Your task to perform on an android device: turn on priority inbox in the gmail app Image 0: 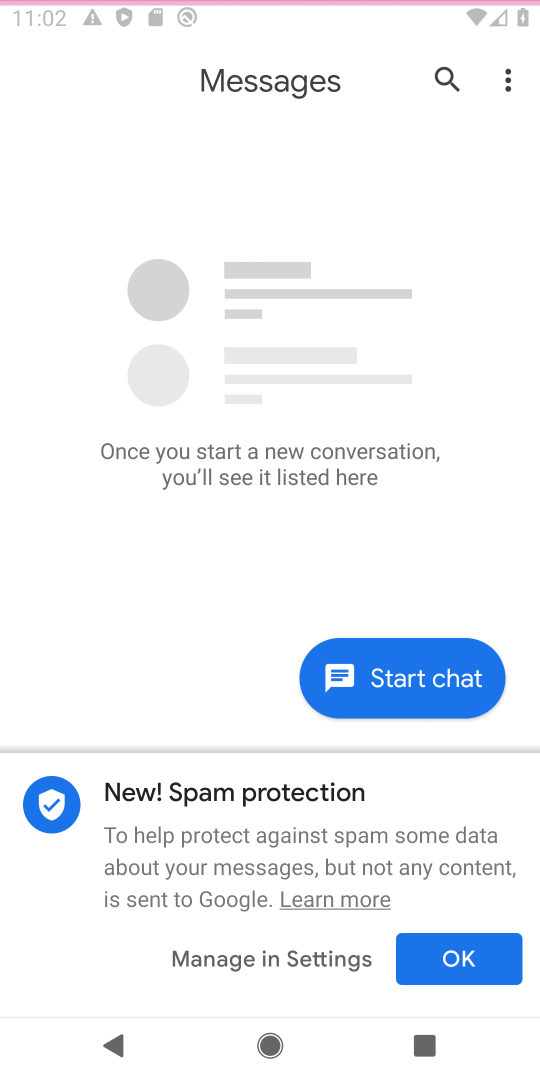
Step 0: press home button
Your task to perform on an android device: turn on priority inbox in the gmail app Image 1: 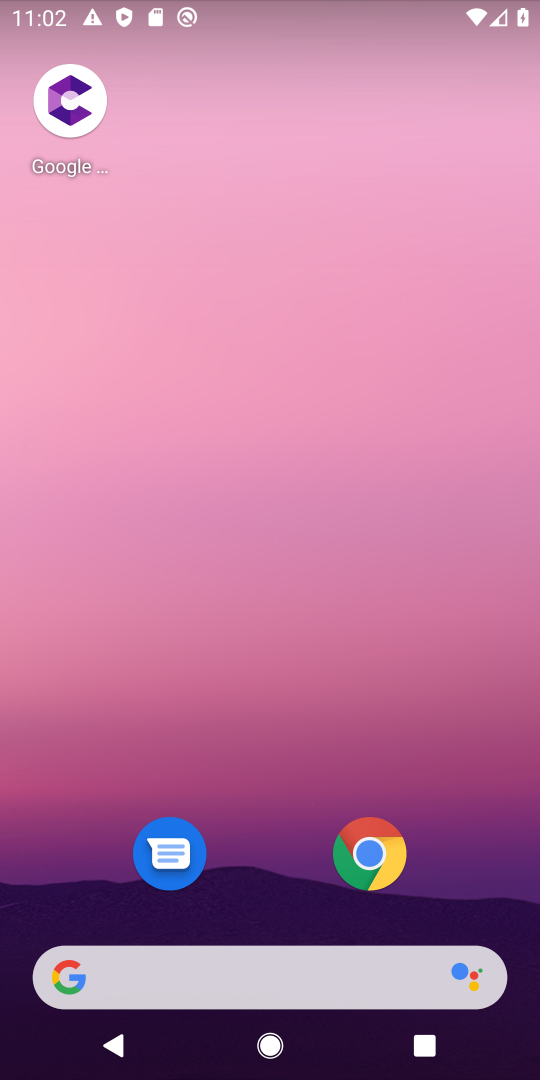
Step 1: drag from (249, 808) to (270, 0)
Your task to perform on an android device: turn on priority inbox in the gmail app Image 2: 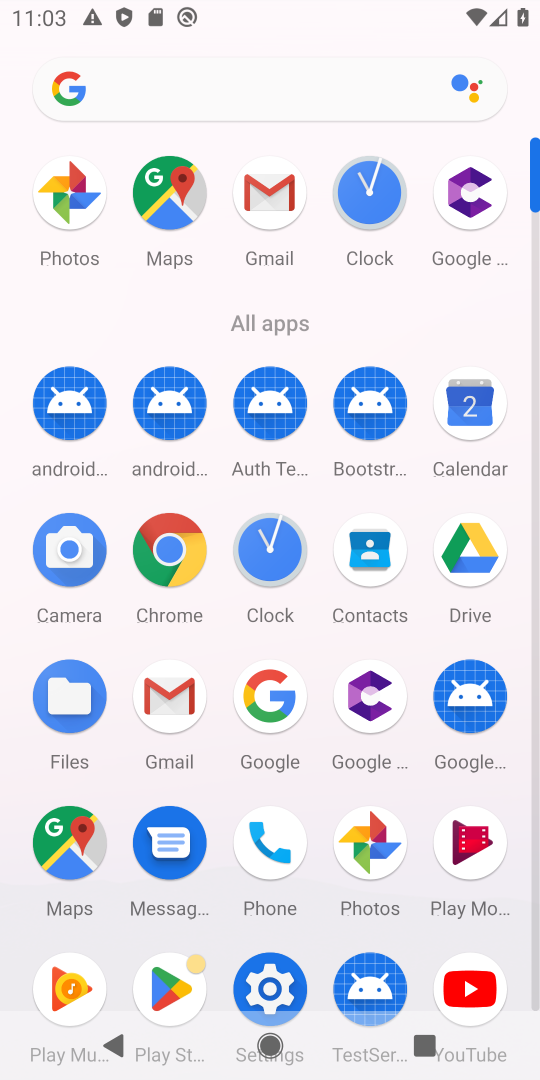
Step 2: click (100, 839)
Your task to perform on an android device: turn on priority inbox in the gmail app Image 3: 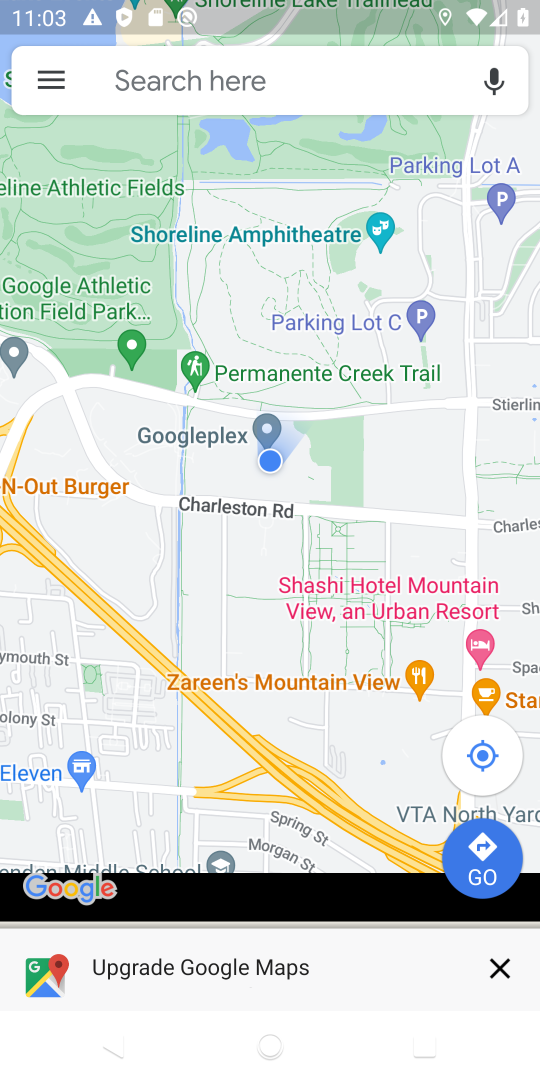
Step 3: click (272, 55)
Your task to perform on an android device: turn on priority inbox in the gmail app Image 4: 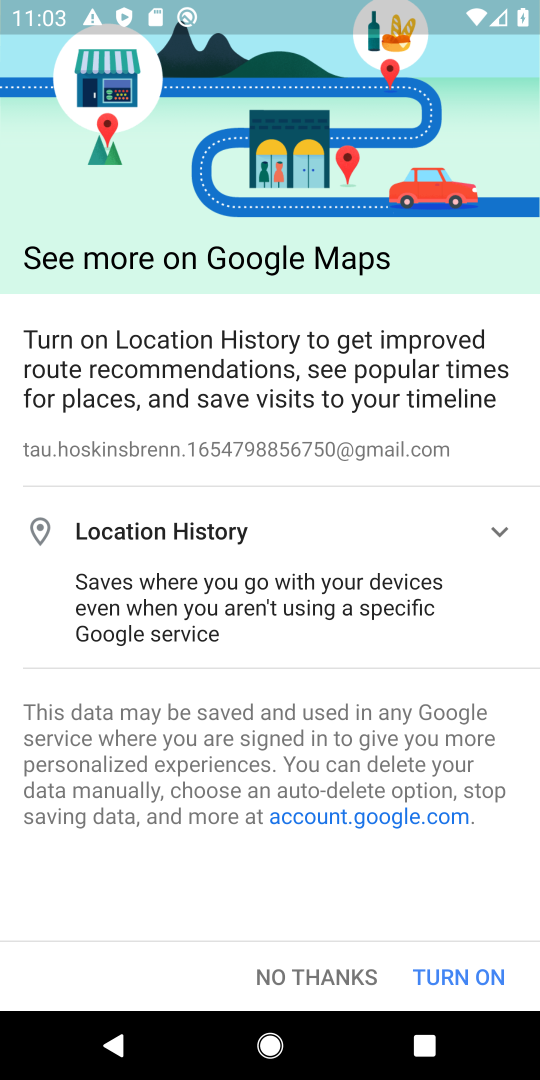
Step 4: type " priority inbox i"
Your task to perform on an android device: turn on priority inbox in the gmail app Image 5: 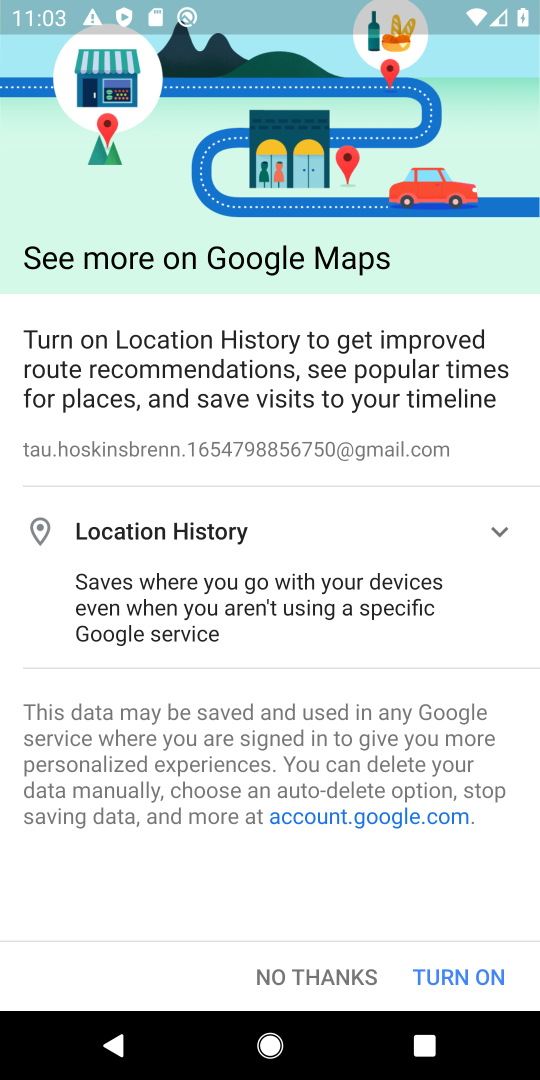
Step 5: click (285, 976)
Your task to perform on an android device: turn on priority inbox in the gmail app Image 6: 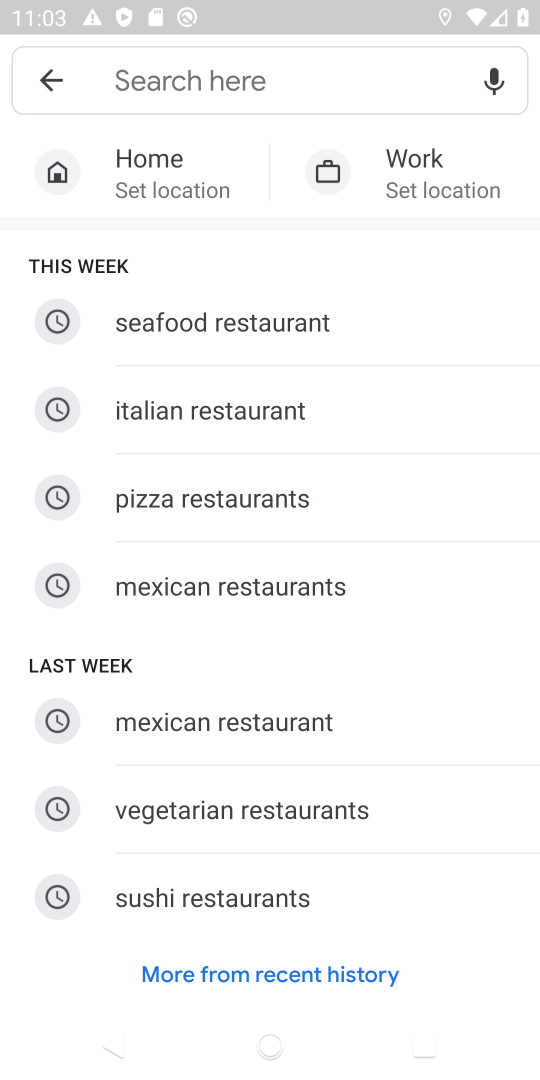
Step 6: press home button
Your task to perform on an android device: turn on priority inbox in the gmail app Image 7: 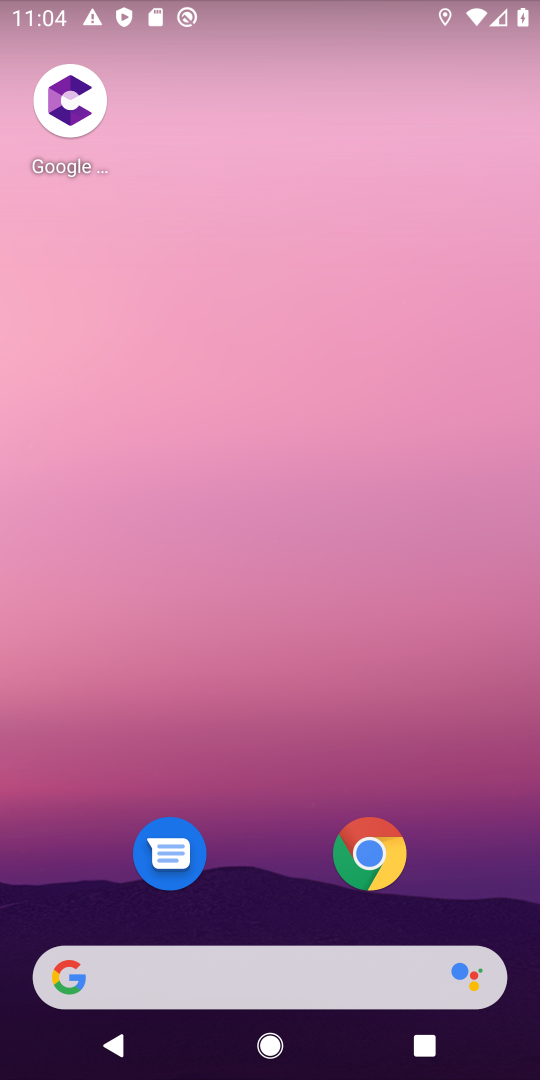
Step 7: drag from (319, 868) to (355, 3)
Your task to perform on an android device: turn on priority inbox in the gmail app Image 8: 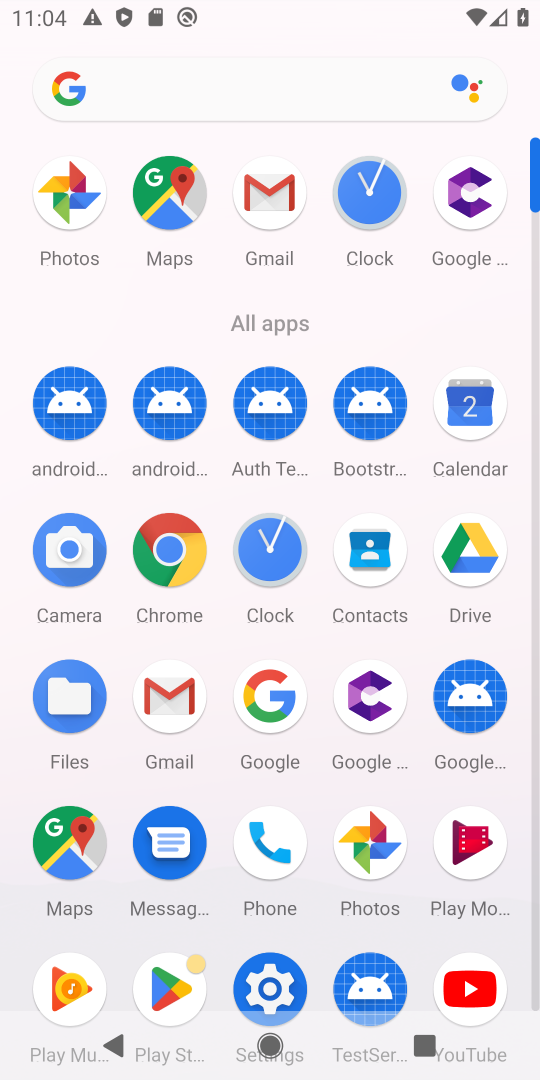
Step 8: click (266, 214)
Your task to perform on an android device: turn on priority inbox in the gmail app Image 9: 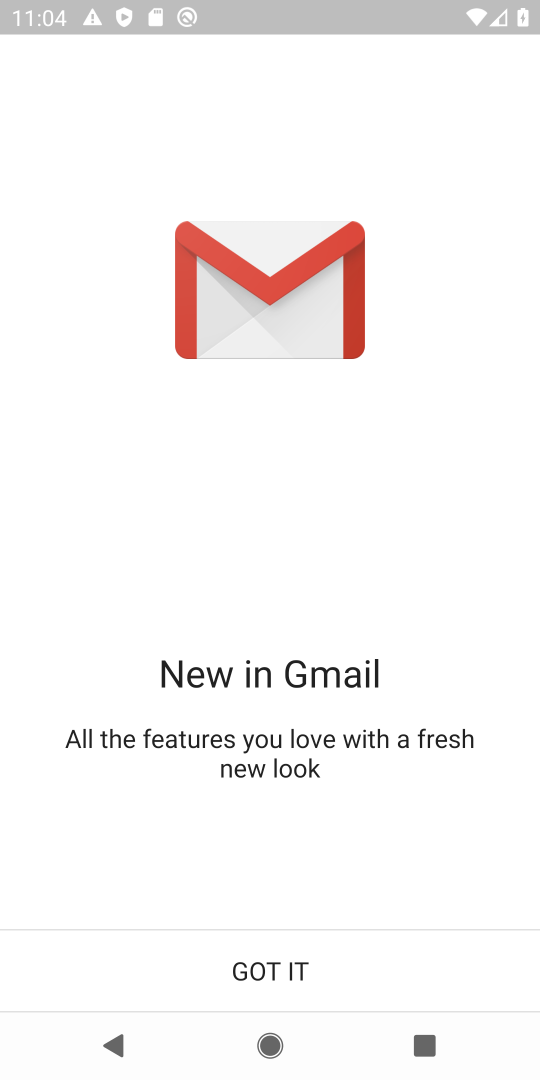
Step 9: click (233, 1004)
Your task to perform on an android device: turn on priority inbox in the gmail app Image 10: 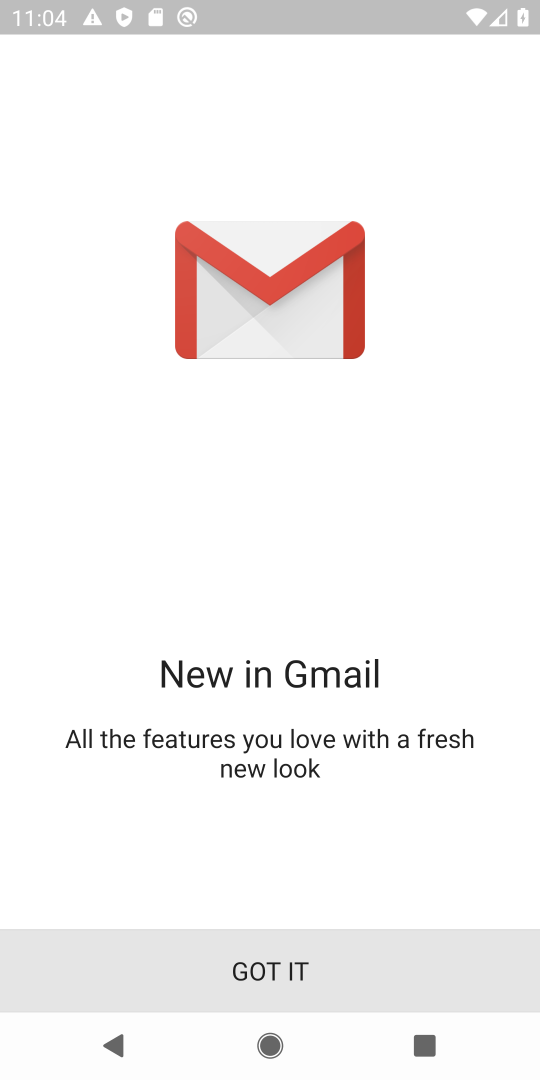
Step 10: click (235, 993)
Your task to perform on an android device: turn on priority inbox in the gmail app Image 11: 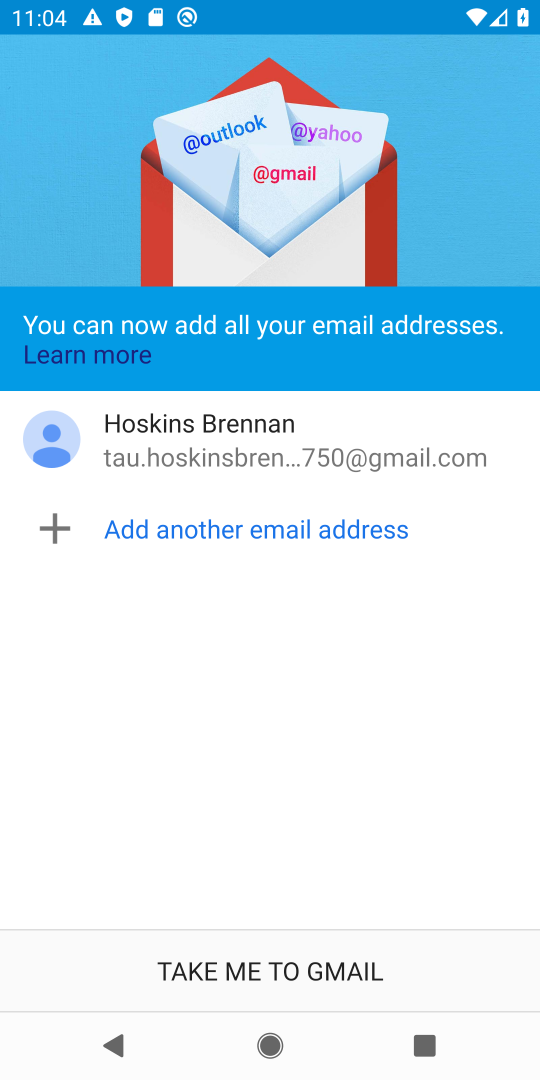
Step 11: click (235, 985)
Your task to perform on an android device: turn on priority inbox in the gmail app Image 12: 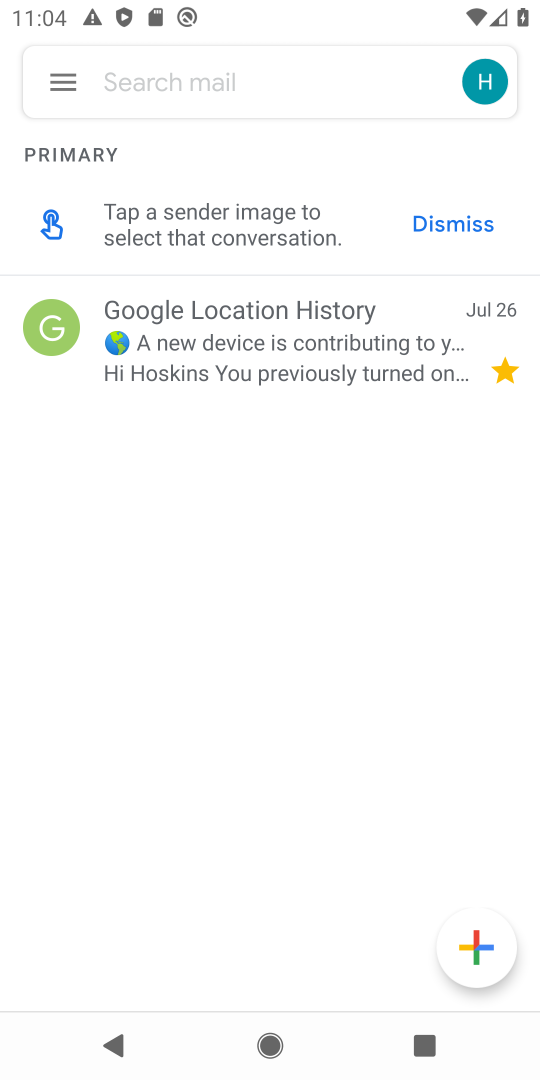
Step 12: click (49, 71)
Your task to perform on an android device: turn on priority inbox in the gmail app Image 13: 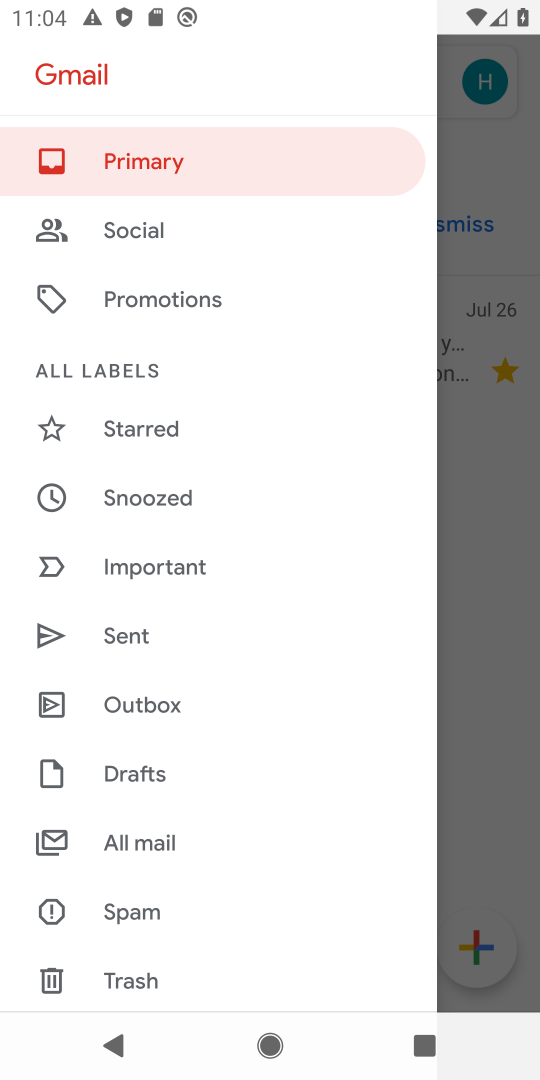
Step 13: drag from (112, 924) to (231, 176)
Your task to perform on an android device: turn on priority inbox in the gmail app Image 14: 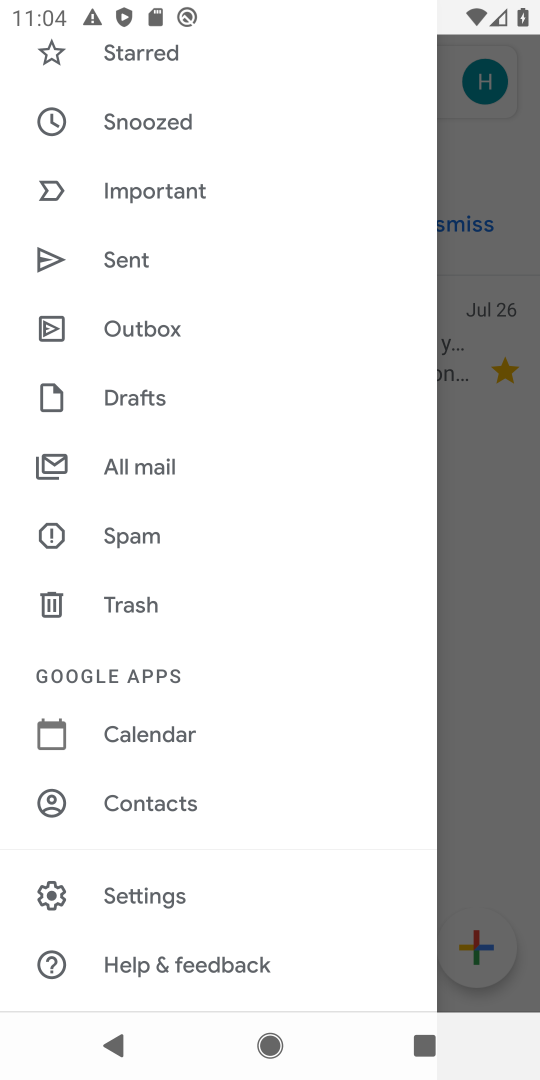
Step 14: click (141, 912)
Your task to perform on an android device: turn on priority inbox in the gmail app Image 15: 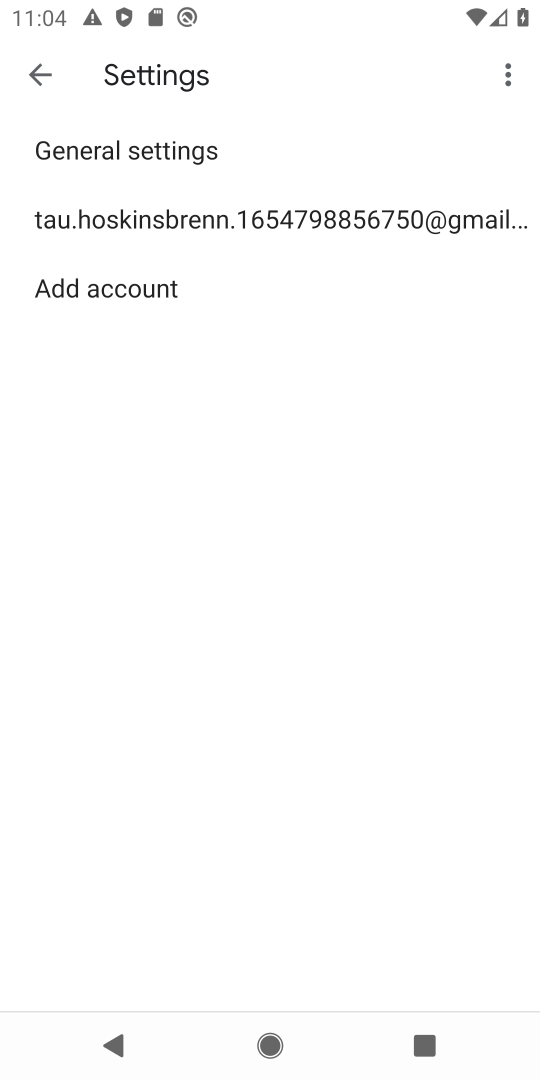
Step 15: click (225, 220)
Your task to perform on an android device: turn on priority inbox in the gmail app Image 16: 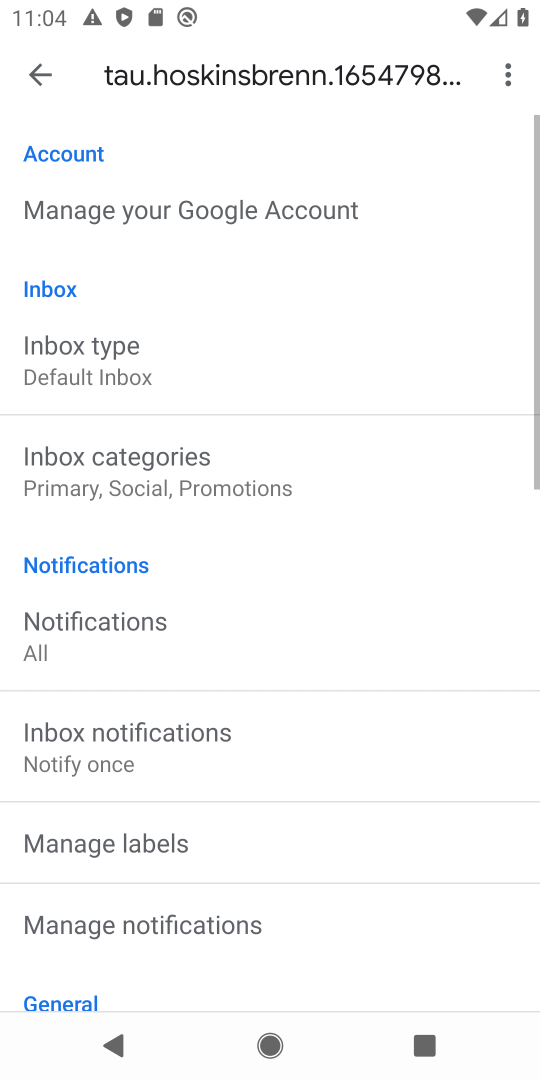
Step 16: click (133, 343)
Your task to perform on an android device: turn on priority inbox in the gmail app Image 17: 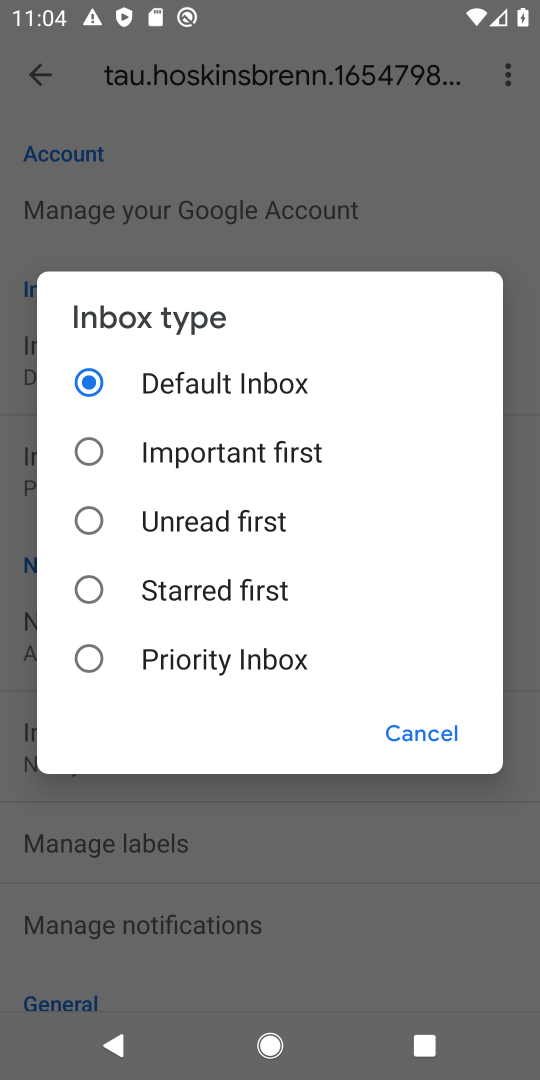
Step 17: click (112, 656)
Your task to perform on an android device: turn on priority inbox in the gmail app Image 18: 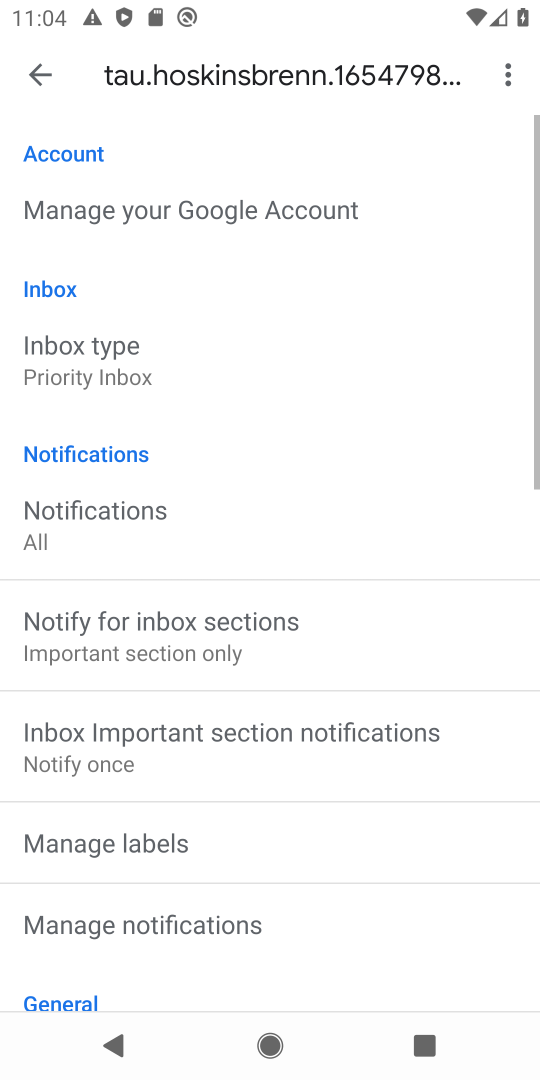
Step 18: task complete